Your task to perform on an android device: turn off sleep mode Image 0: 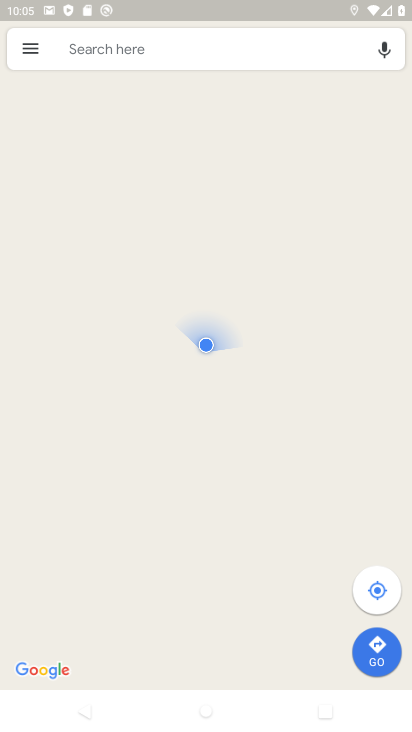
Step 0: drag from (195, 594) to (247, 190)
Your task to perform on an android device: turn off sleep mode Image 1: 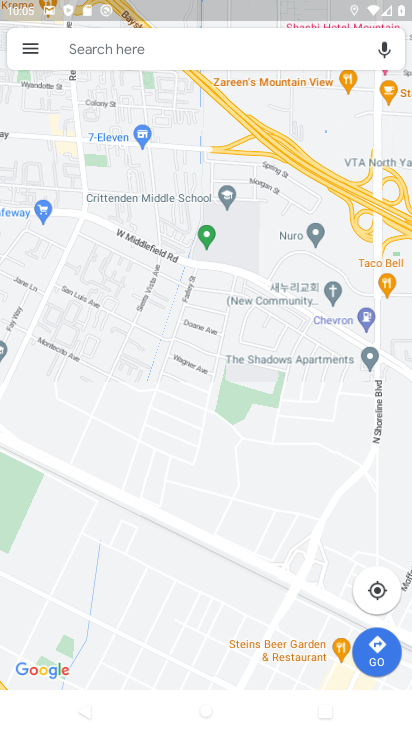
Step 1: press home button
Your task to perform on an android device: turn off sleep mode Image 2: 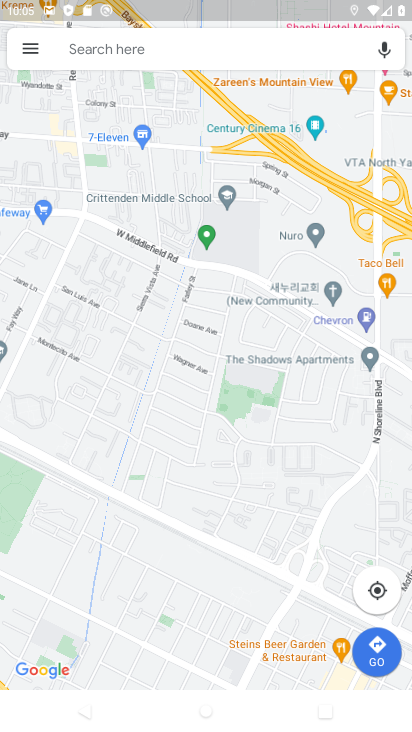
Step 2: click (205, 227)
Your task to perform on an android device: turn off sleep mode Image 3: 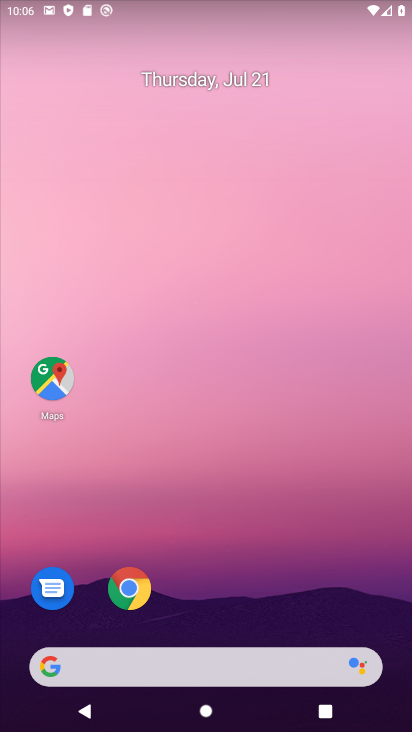
Step 3: drag from (203, 611) to (152, 1)
Your task to perform on an android device: turn off sleep mode Image 4: 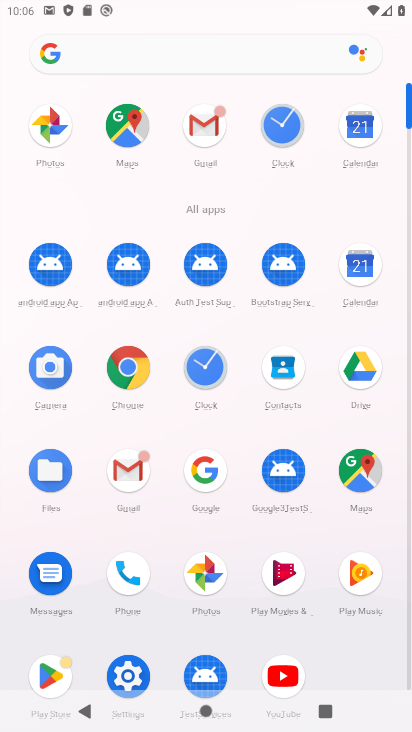
Step 4: click (121, 666)
Your task to perform on an android device: turn off sleep mode Image 5: 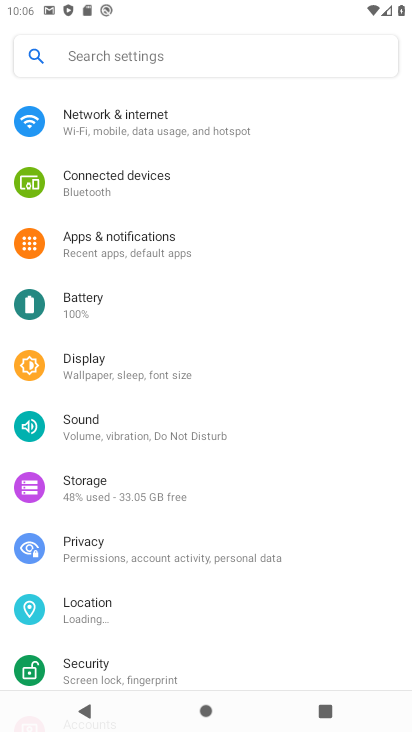
Step 5: drag from (200, 528) to (222, 86)
Your task to perform on an android device: turn off sleep mode Image 6: 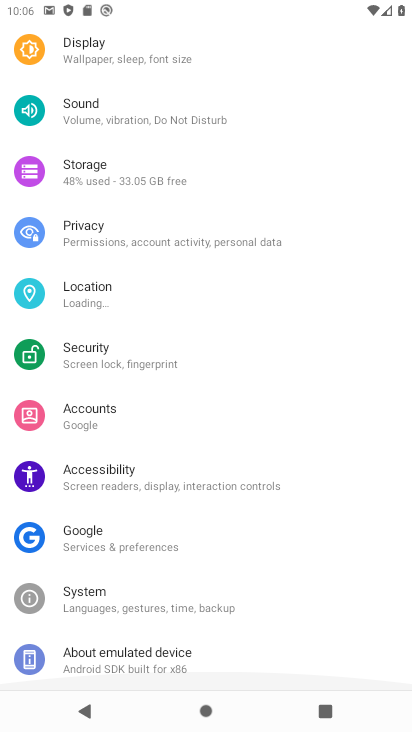
Step 6: drag from (181, 218) to (301, 721)
Your task to perform on an android device: turn off sleep mode Image 7: 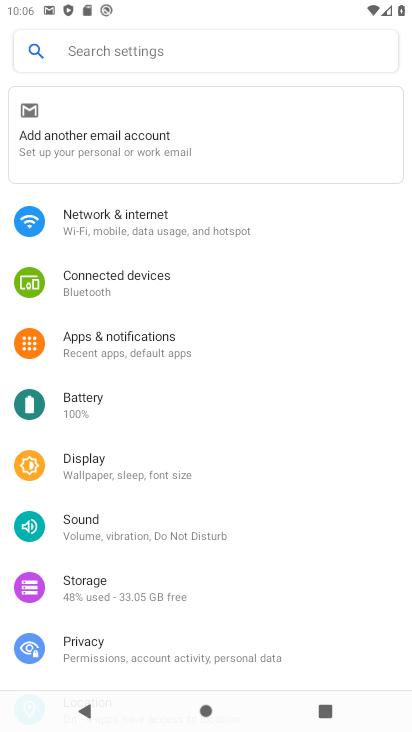
Step 7: click (97, 454)
Your task to perform on an android device: turn off sleep mode Image 8: 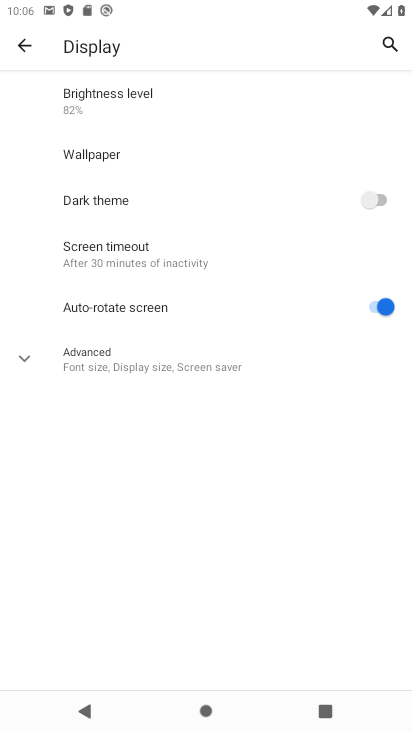
Step 8: click (101, 263)
Your task to perform on an android device: turn off sleep mode Image 9: 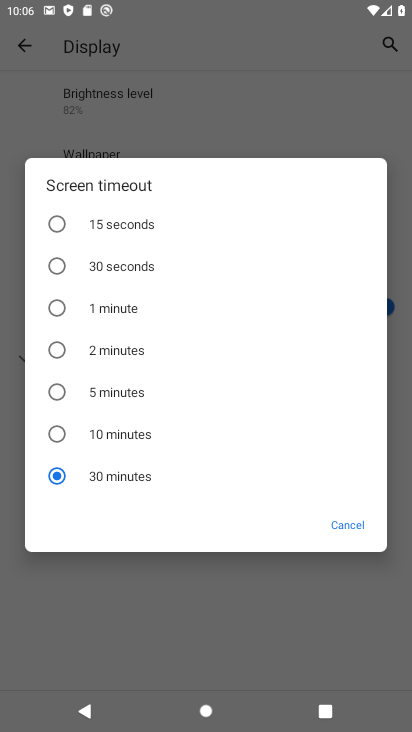
Step 9: drag from (117, 446) to (139, 297)
Your task to perform on an android device: turn off sleep mode Image 10: 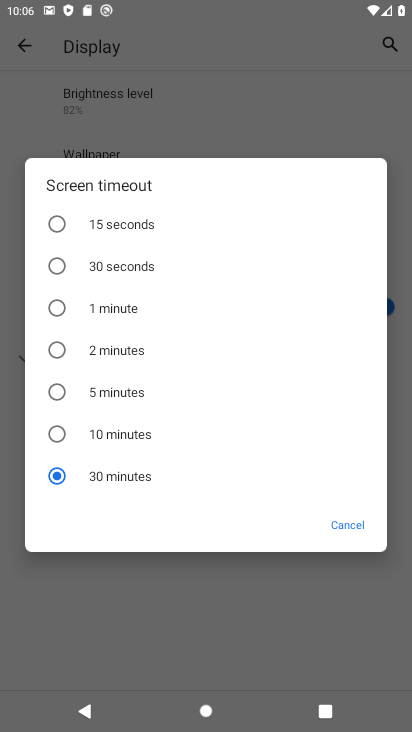
Step 10: click (66, 225)
Your task to perform on an android device: turn off sleep mode Image 11: 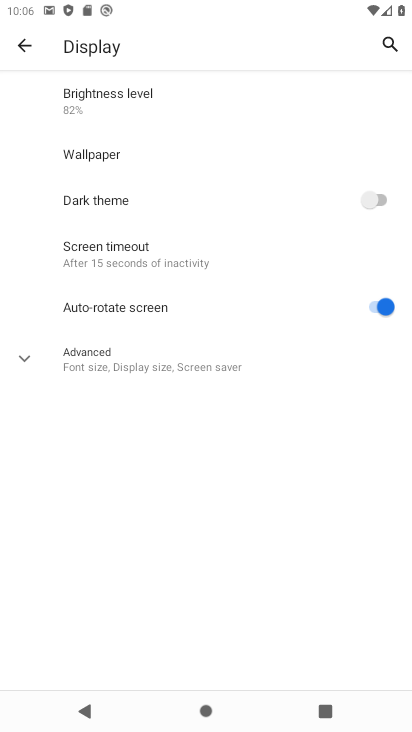
Step 11: task complete